Your task to perform on an android device: toggle pop-ups in chrome Image 0: 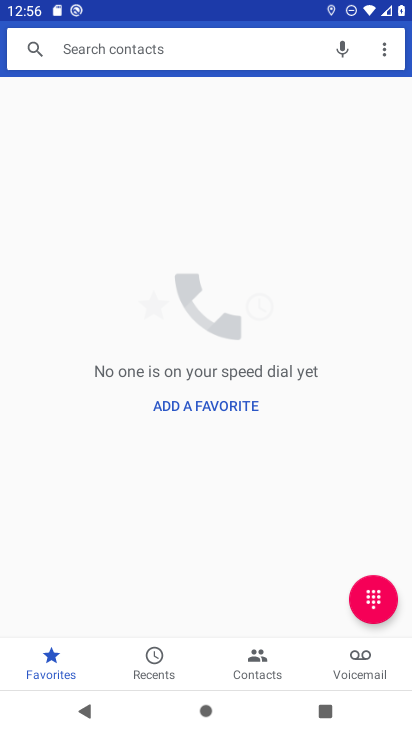
Step 0: press home button
Your task to perform on an android device: toggle pop-ups in chrome Image 1: 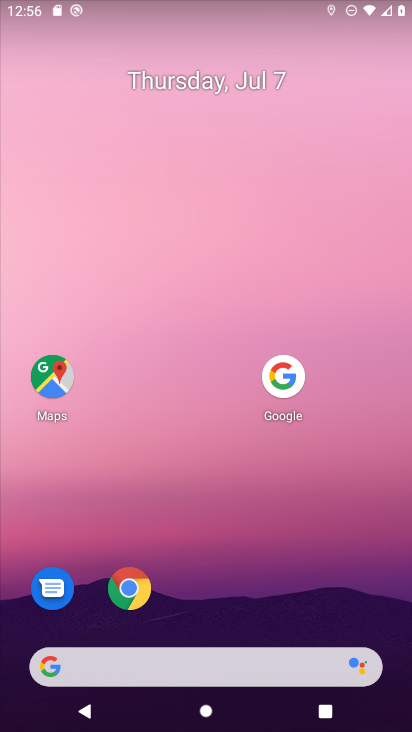
Step 1: click (130, 586)
Your task to perform on an android device: toggle pop-ups in chrome Image 2: 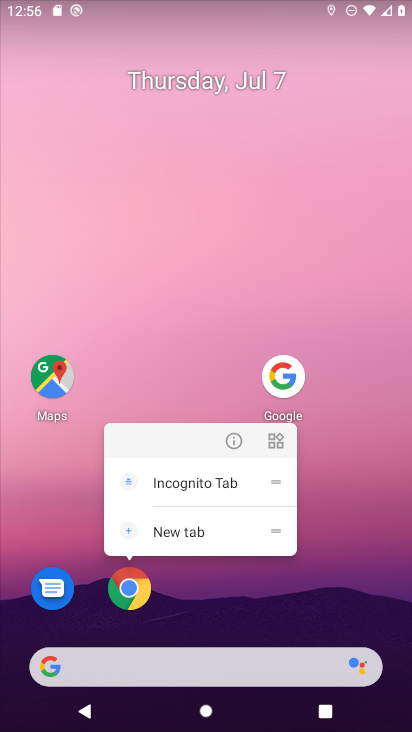
Step 2: click (129, 586)
Your task to perform on an android device: toggle pop-ups in chrome Image 3: 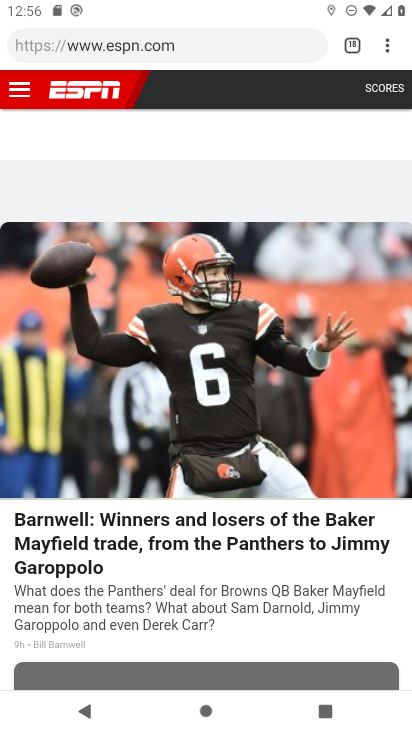
Step 3: drag from (385, 44) to (225, 545)
Your task to perform on an android device: toggle pop-ups in chrome Image 4: 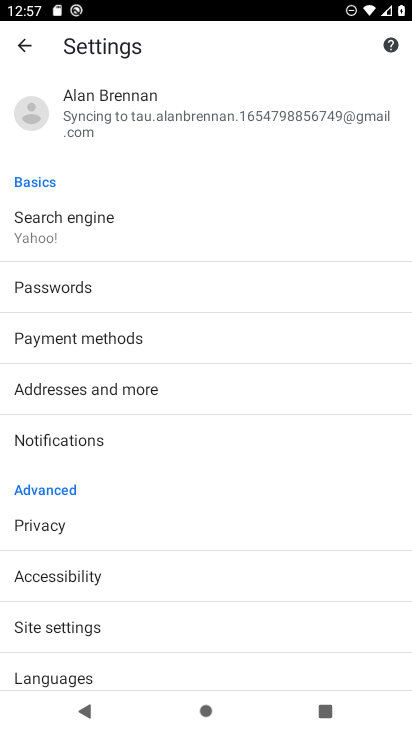
Step 4: click (70, 629)
Your task to perform on an android device: toggle pop-ups in chrome Image 5: 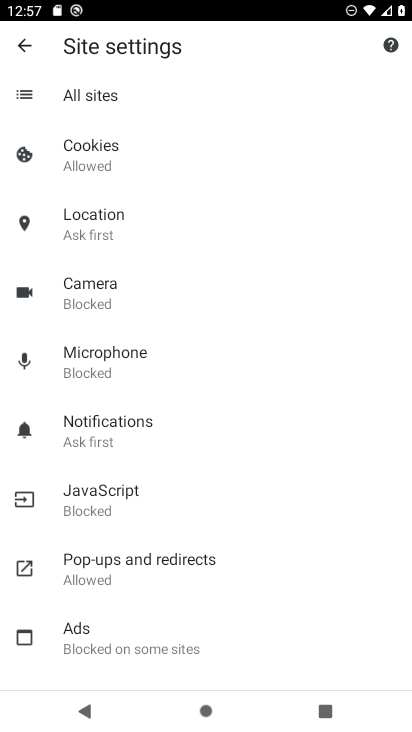
Step 5: click (149, 552)
Your task to perform on an android device: toggle pop-ups in chrome Image 6: 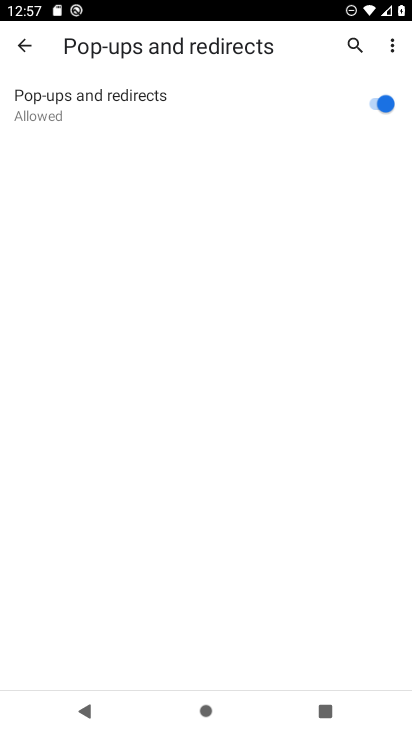
Step 6: click (377, 102)
Your task to perform on an android device: toggle pop-ups in chrome Image 7: 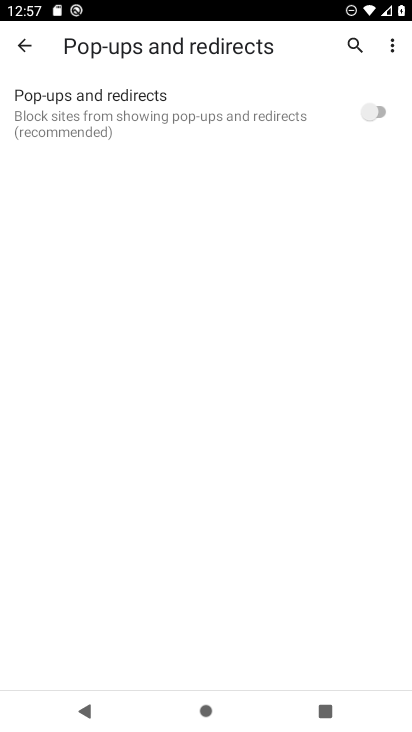
Step 7: task complete